Your task to perform on an android device: toggle data saver in the chrome app Image 0: 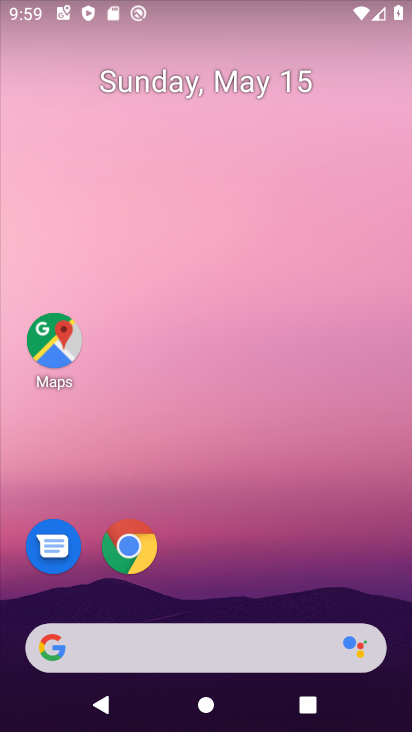
Step 0: click (137, 551)
Your task to perform on an android device: toggle data saver in the chrome app Image 1: 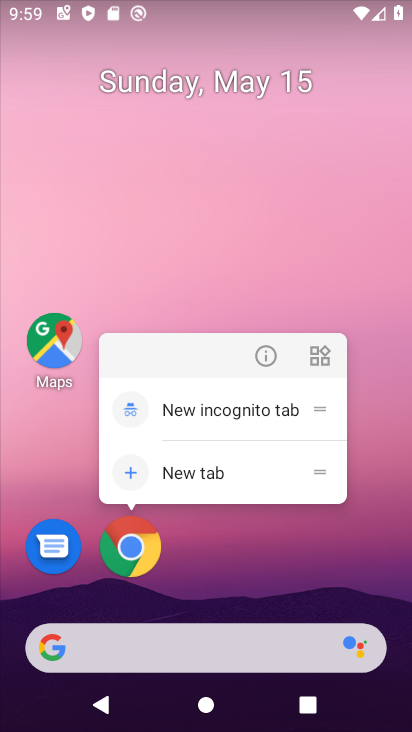
Step 1: click (137, 551)
Your task to perform on an android device: toggle data saver in the chrome app Image 2: 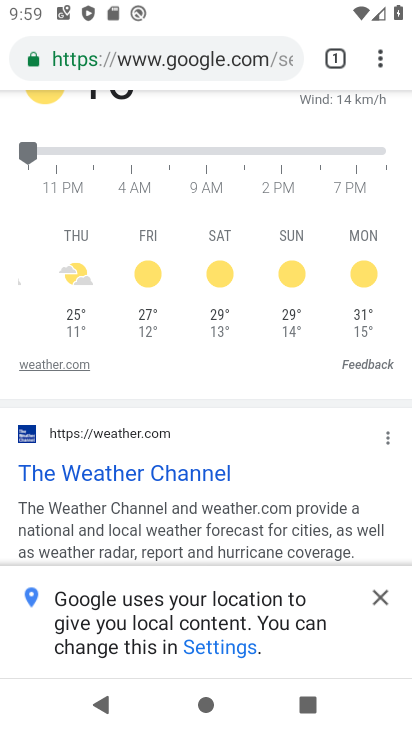
Step 2: drag from (373, 59) to (176, 574)
Your task to perform on an android device: toggle data saver in the chrome app Image 3: 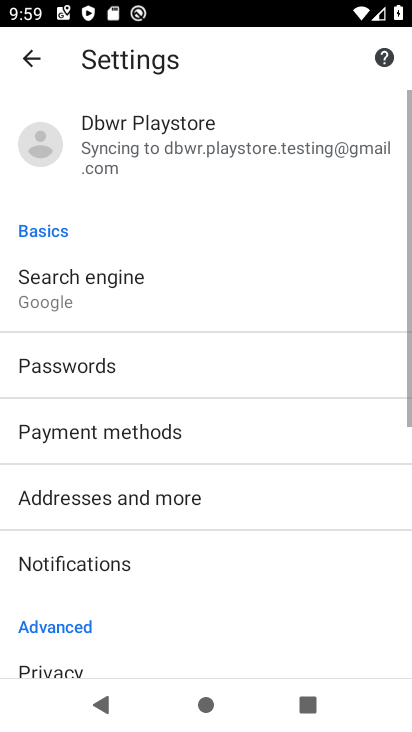
Step 3: drag from (175, 556) to (128, 198)
Your task to perform on an android device: toggle data saver in the chrome app Image 4: 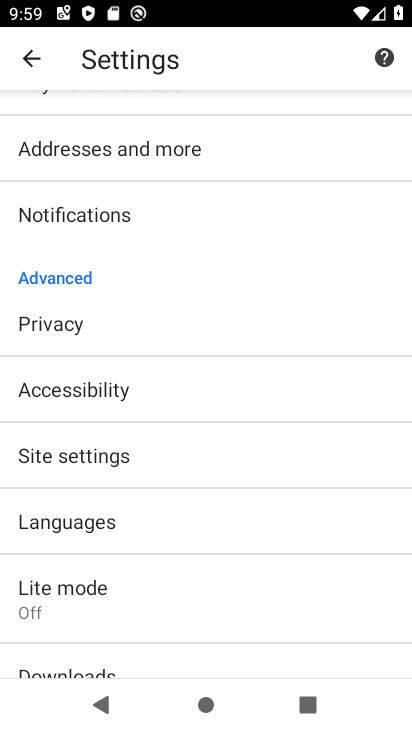
Step 4: drag from (150, 532) to (202, 333)
Your task to perform on an android device: toggle data saver in the chrome app Image 5: 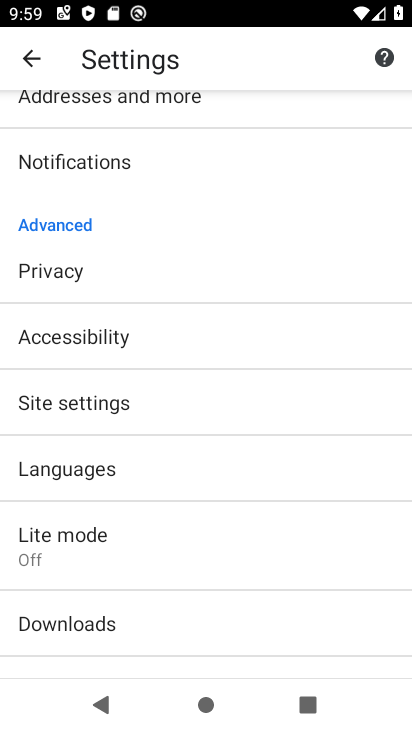
Step 5: click (72, 421)
Your task to perform on an android device: toggle data saver in the chrome app Image 6: 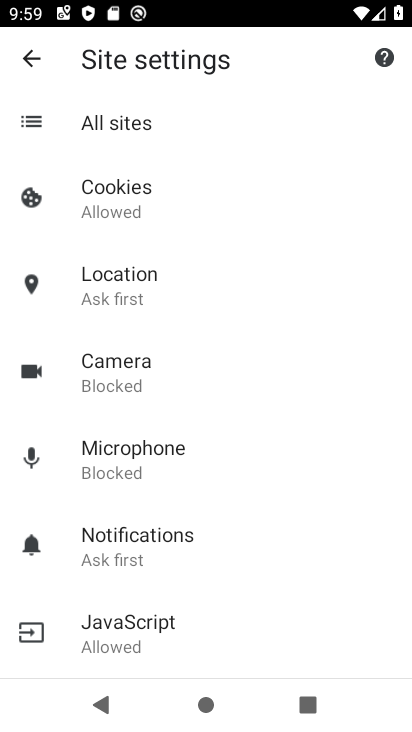
Step 6: click (169, 638)
Your task to perform on an android device: toggle data saver in the chrome app Image 7: 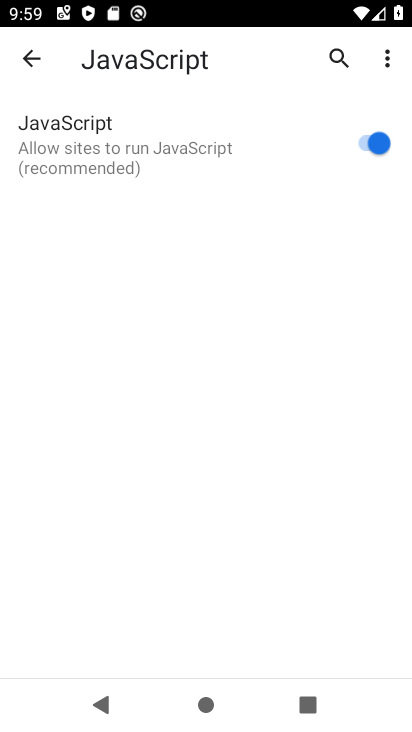
Step 7: drag from (367, 147) to (143, 584)
Your task to perform on an android device: toggle data saver in the chrome app Image 8: 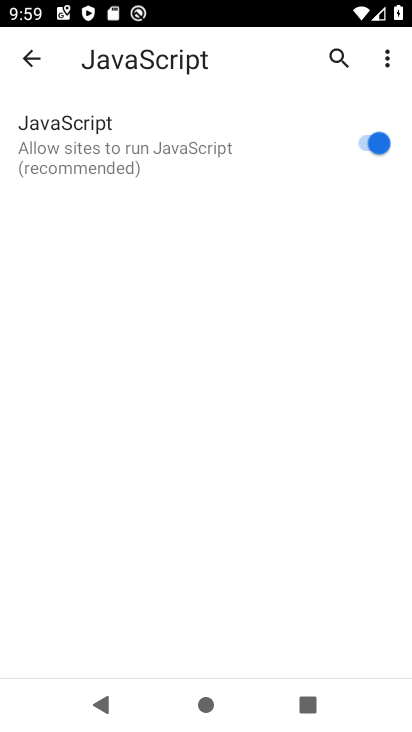
Step 8: click (23, 63)
Your task to perform on an android device: toggle data saver in the chrome app Image 9: 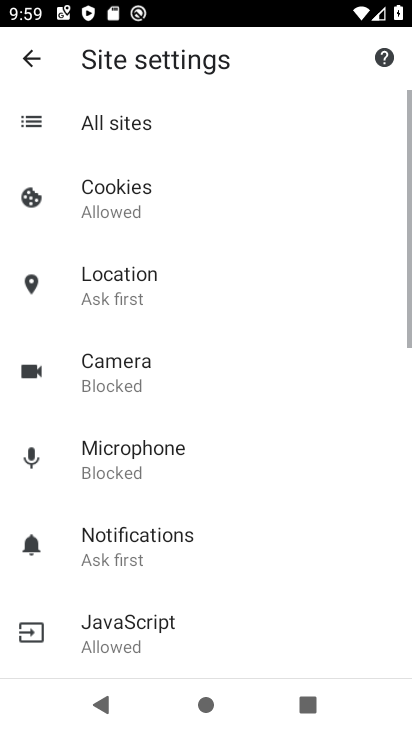
Step 9: drag from (160, 595) to (163, 243)
Your task to perform on an android device: toggle data saver in the chrome app Image 10: 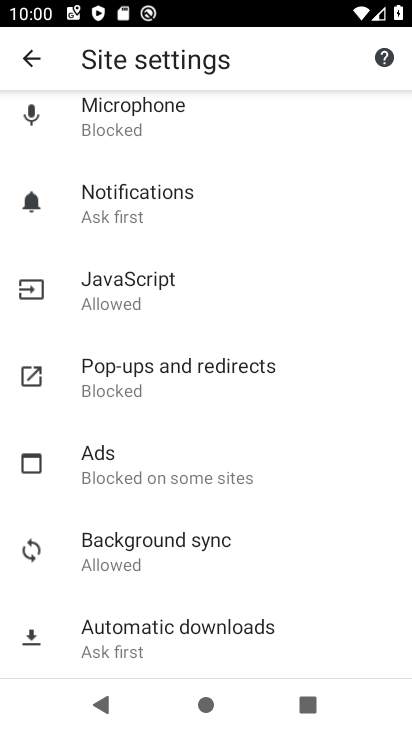
Step 10: click (19, 65)
Your task to perform on an android device: toggle data saver in the chrome app Image 11: 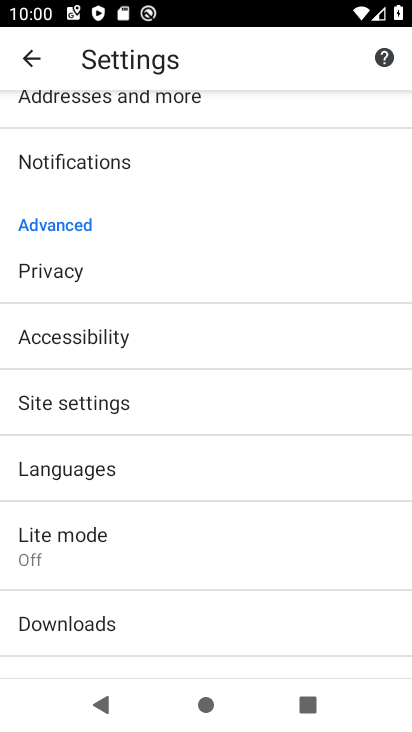
Step 11: click (135, 557)
Your task to perform on an android device: toggle data saver in the chrome app Image 12: 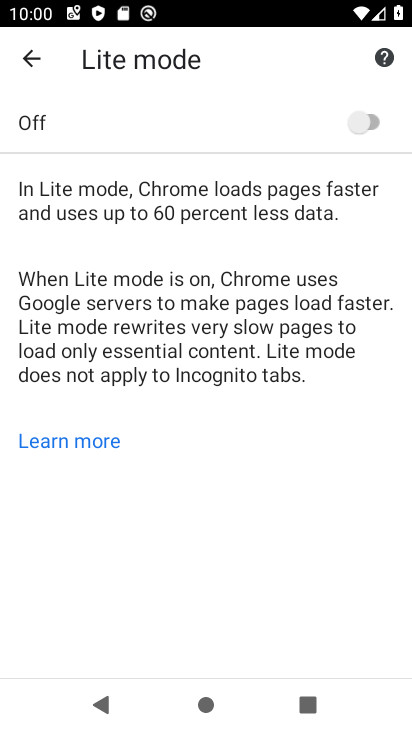
Step 12: click (350, 111)
Your task to perform on an android device: toggle data saver in the chrome app Image 13: 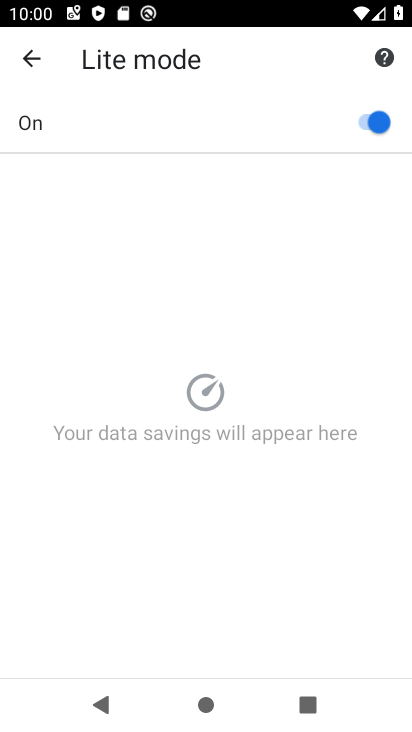
Step 13: task complete